Your task to perform on an android device: Add lenovo thinkpad to the cart on target.com Image 0: 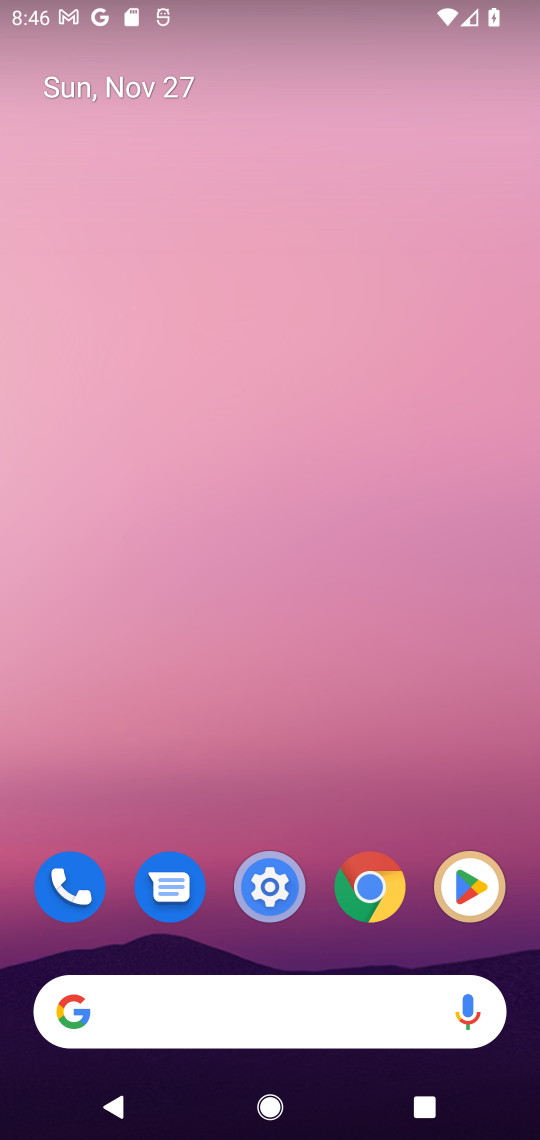
Step 0: task complete